Your task to perform on an android device: Show me popular games on the Play Store Image 0: 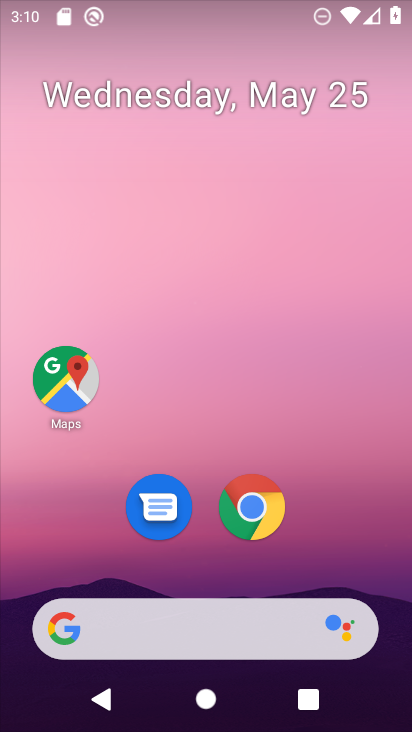
Step 0: drag from (236, 496) to (224, 203)
Your task to perform on an android device: Show me popular games on the Play Store Image 1: 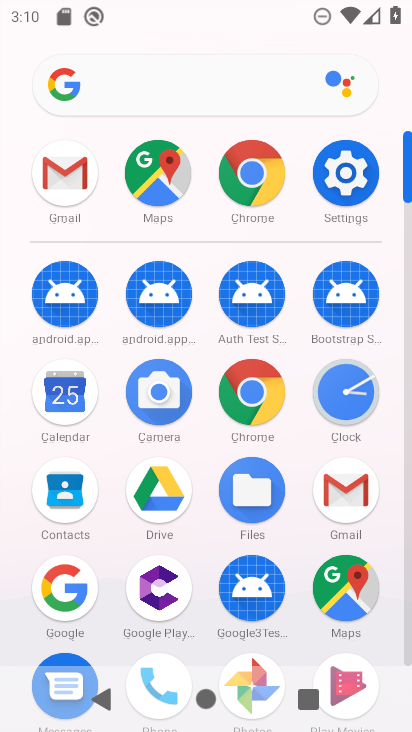
Step 1: drag from (120, 554) to (174, 235)
Your task to perform on an android device: Show me popular games on the Play Store Image 2: 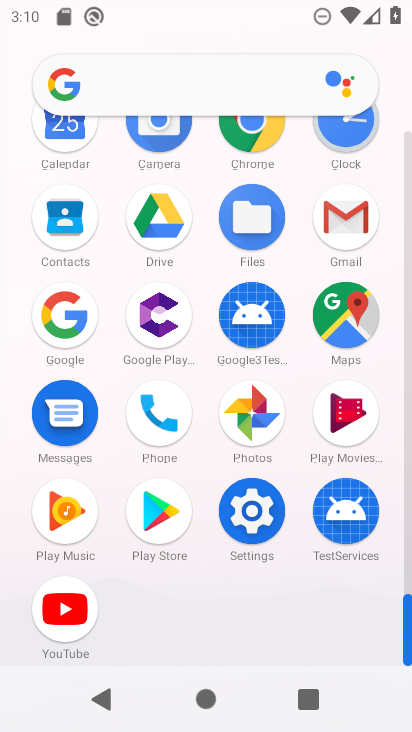
Step 2: click (168, 518)
Your task to perform on an android device: Show me popular games on the Play Store Image 3: 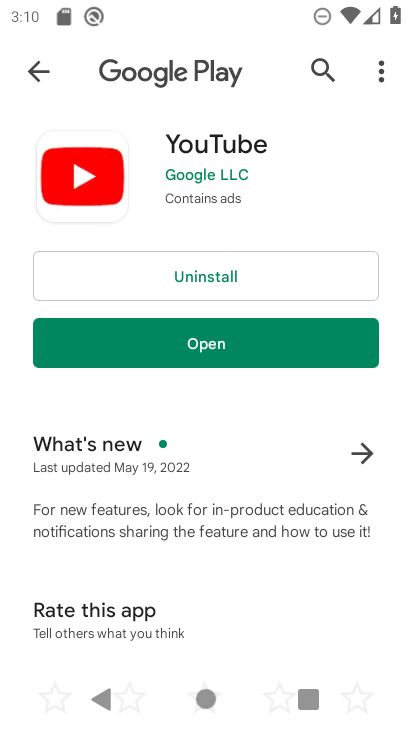
Step 3: click (42, 75)
Your task to perform on an android device: Show me popular games on the Play Store Image 4: 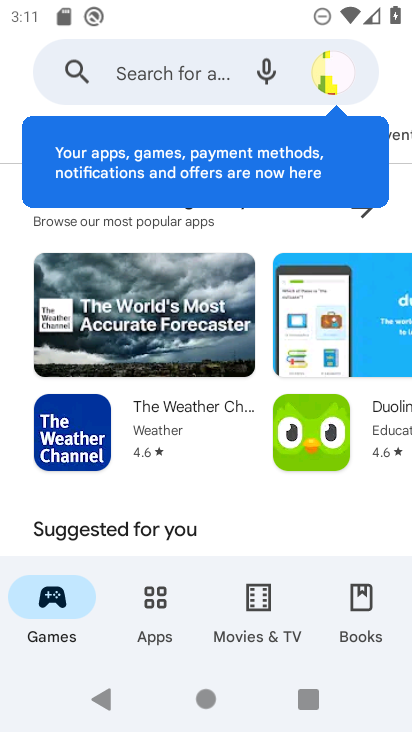
Step 4: task complete